Your task to perform on an android device: turn pop-ups on in chrome Image 0: 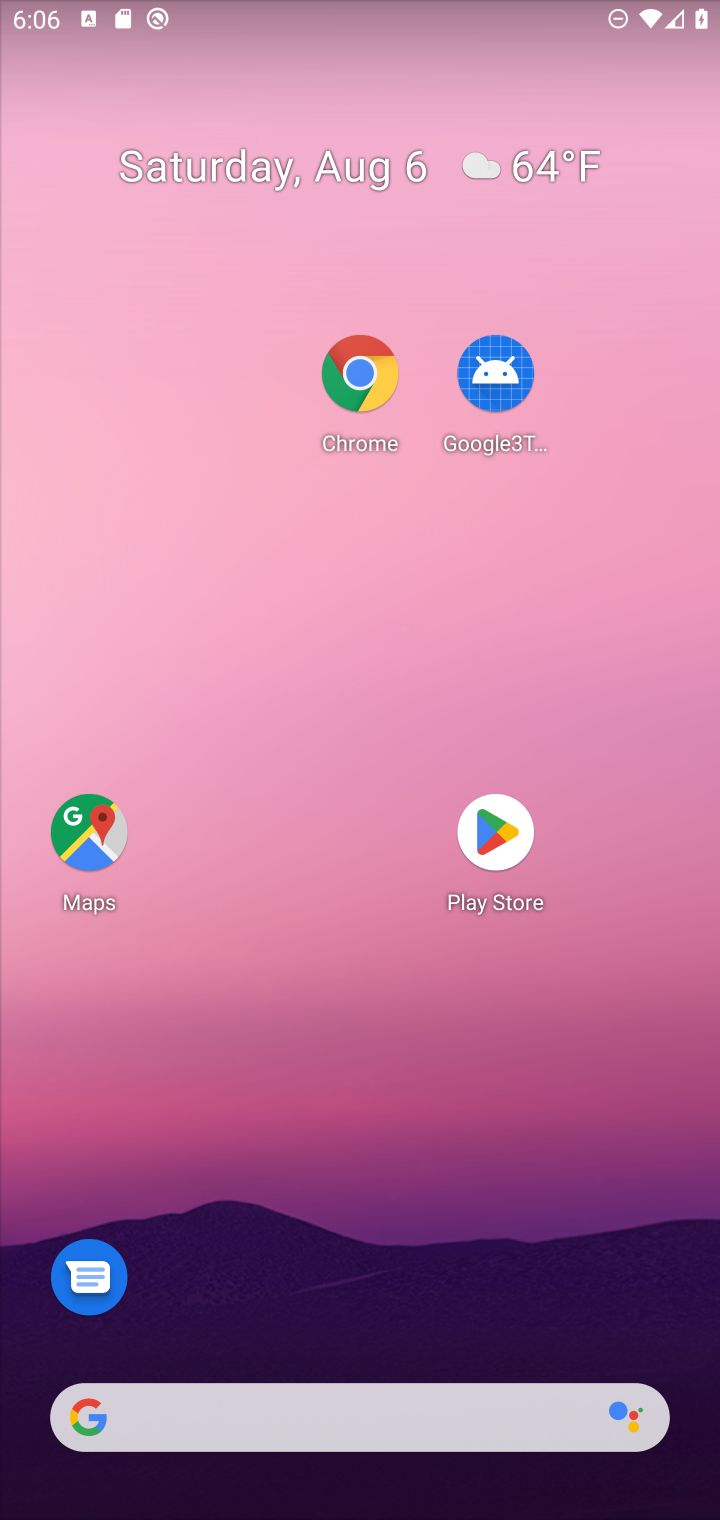
Step 0: drag from (505, 1409) to (322, 36)
Your task to perform on an android device: turn pop-ups on in chrome Image 1: 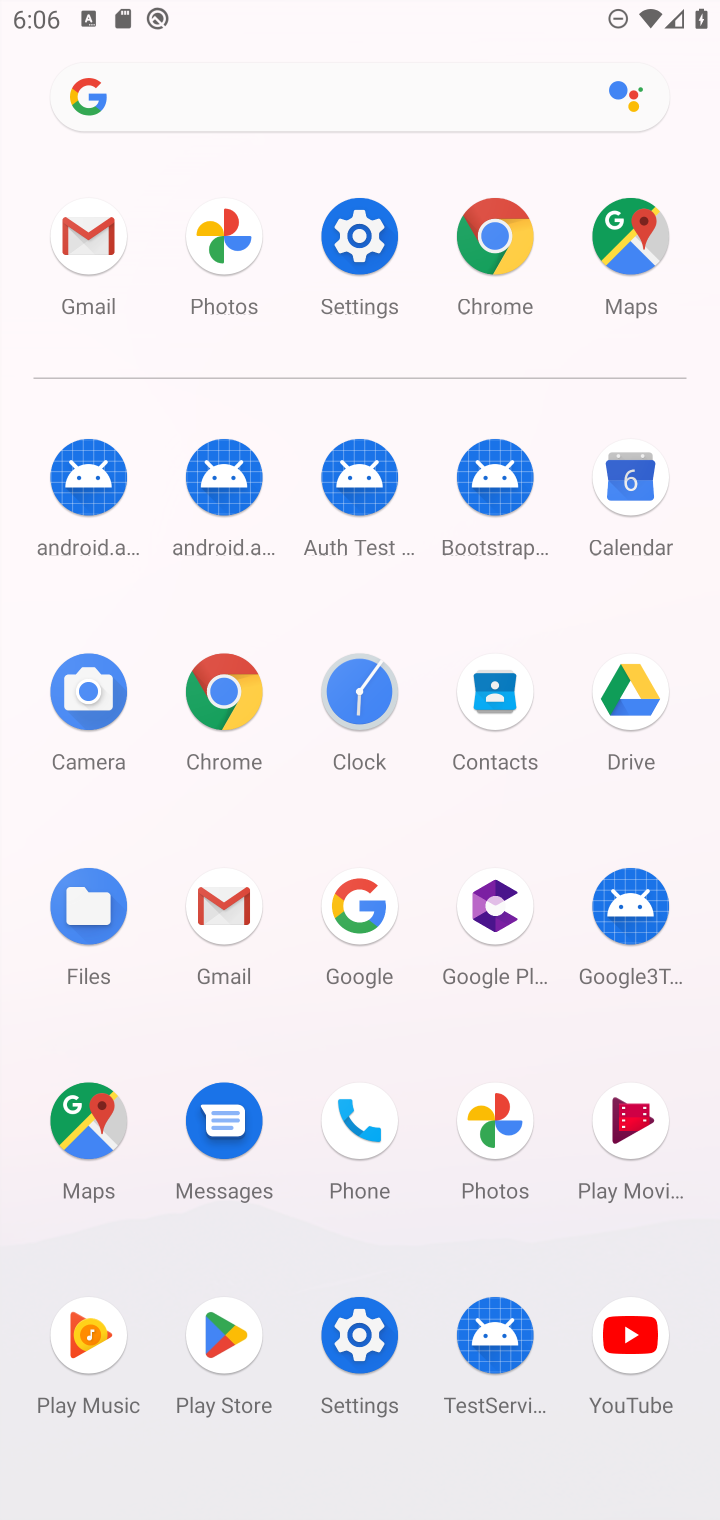
Step 1: click (221, 711)
Your task to perform on an android device: turn pop-ups on in chrome Image 2: 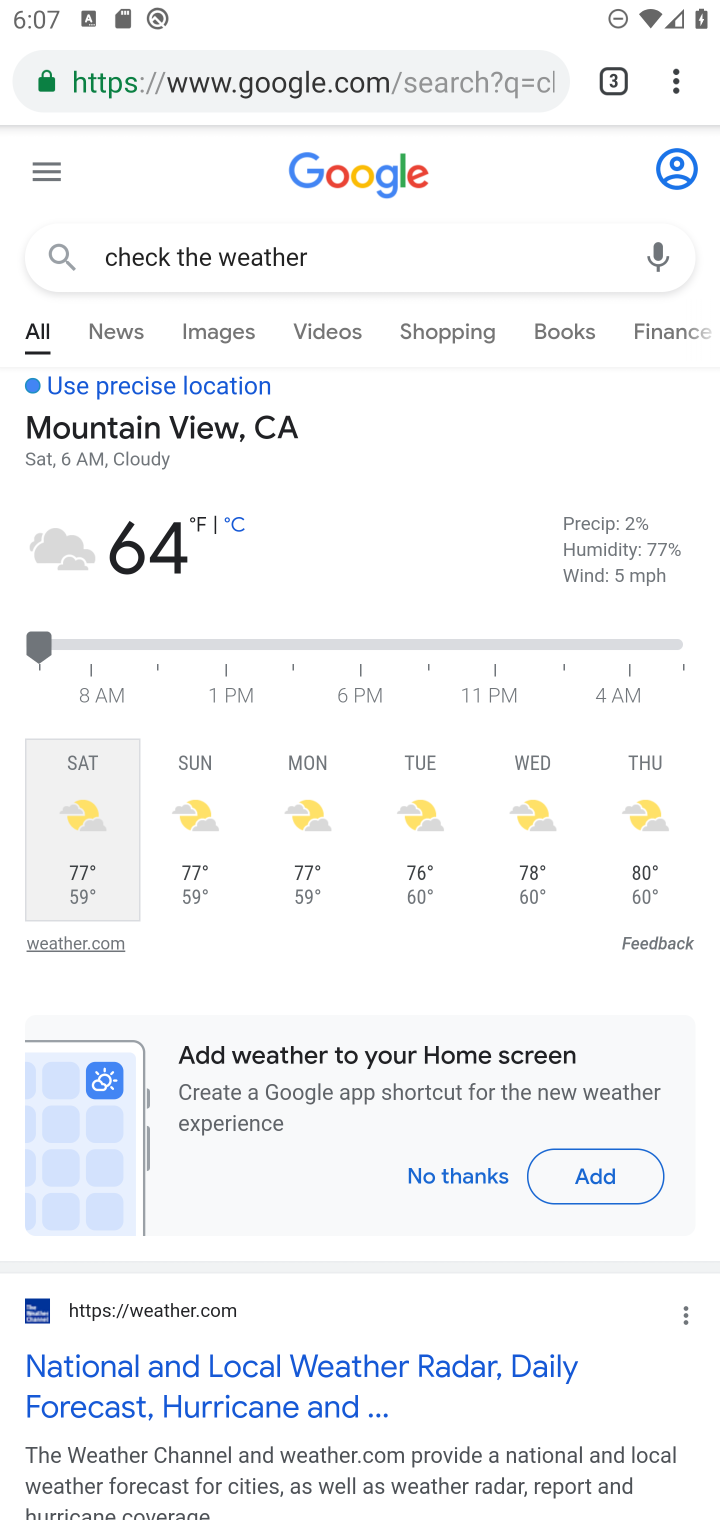
Step 2: click (676, 84)
Your task to perform on an android device: turn pop-ups on in chrome Image 3: 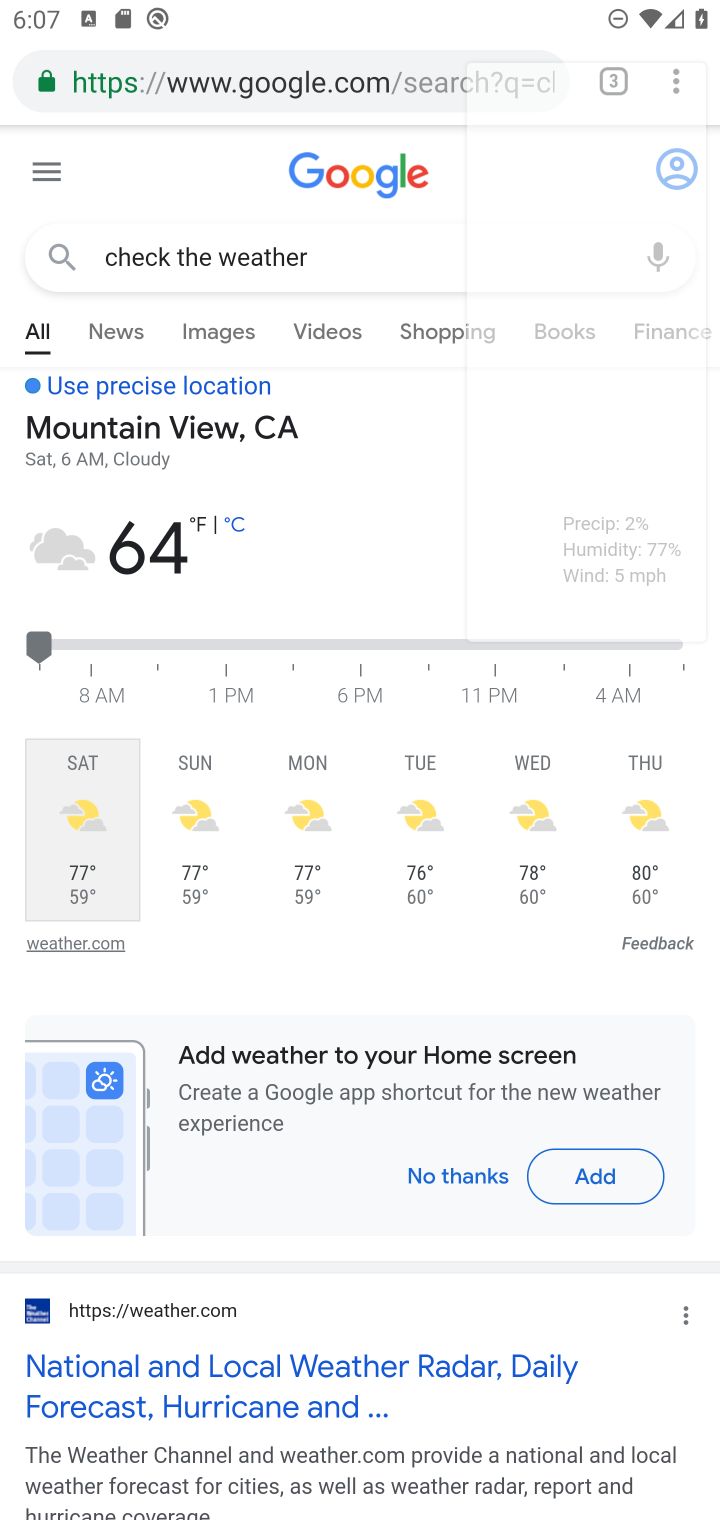
Step 3: click (676, 84)
Your task to perform on an android device: turn pop-ups on in chrome Image 4: 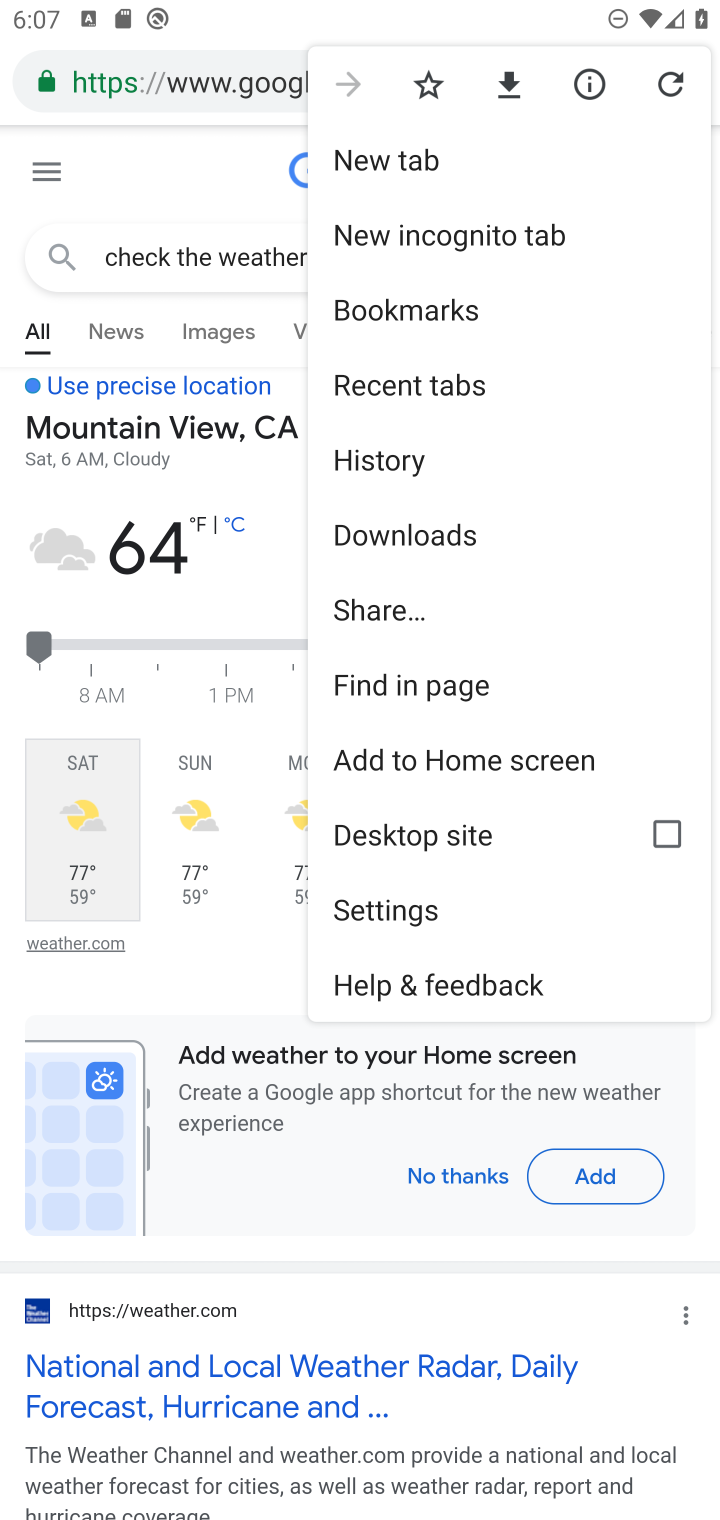
Step 4: click (457, 903)
Your task to perform on an android device: turn pop-ups on in chrome Image 5: 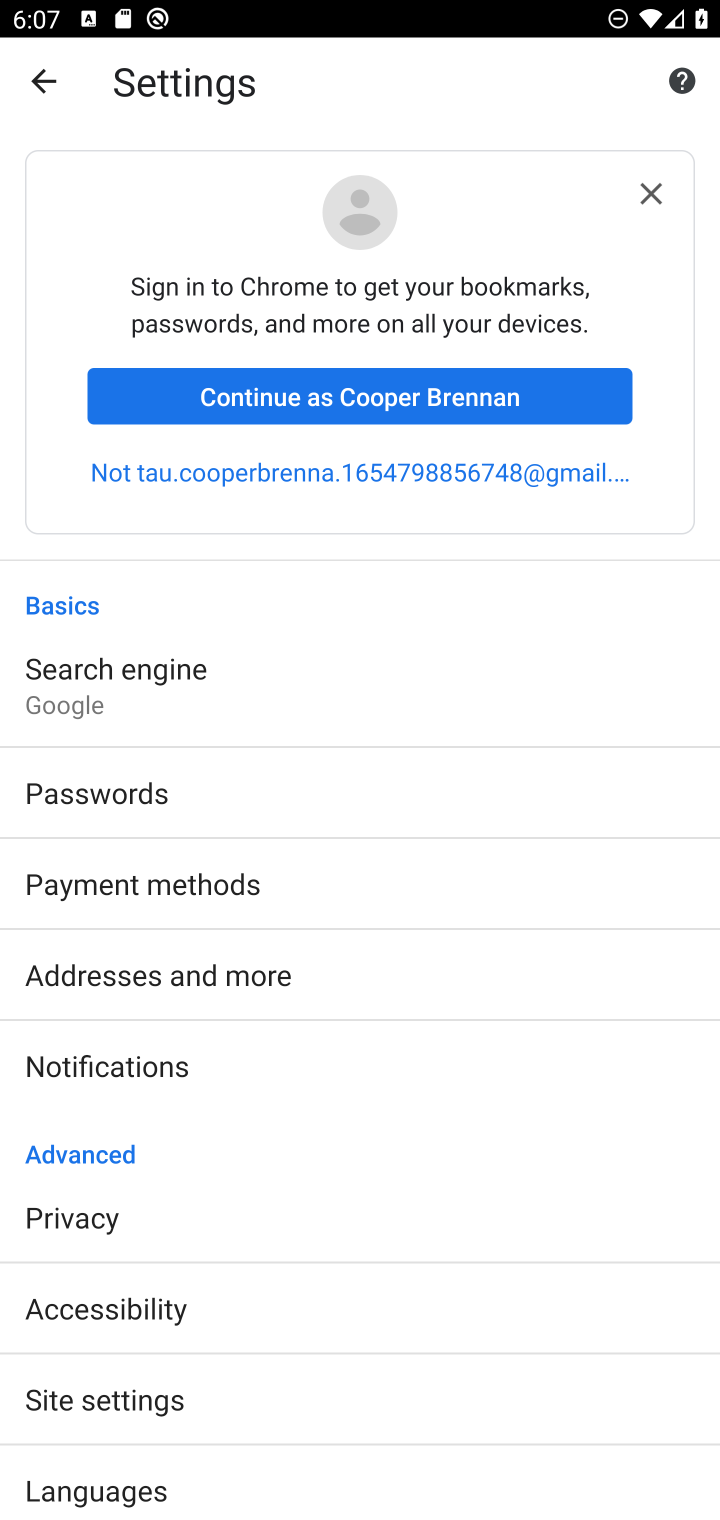
Step 5: click (128, 1409)
Your task to perform on an android device: turn pop-ups on in chrome Image 6: 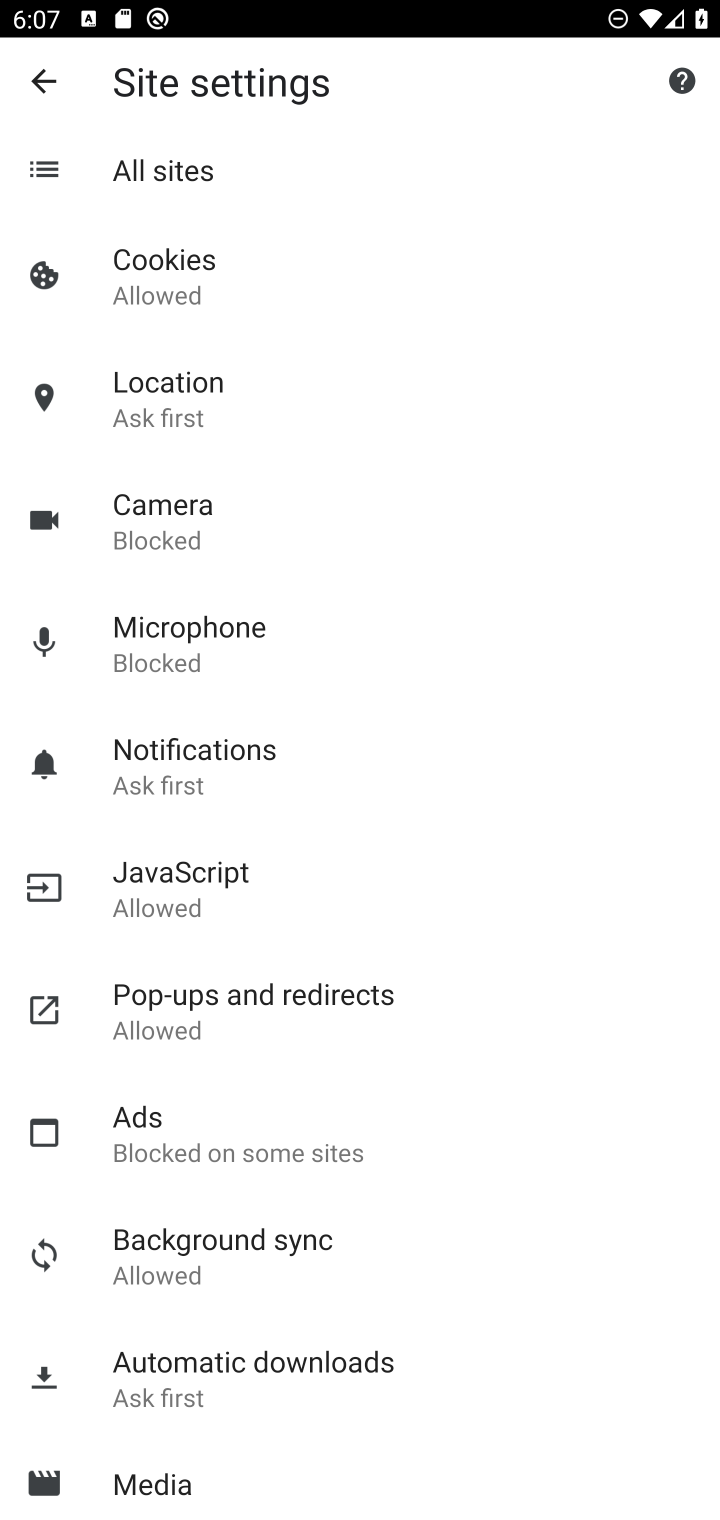
Step 6: click (232, 1006)
Your task to perform on an android device: turn pop-ups on in chrome Image 7: 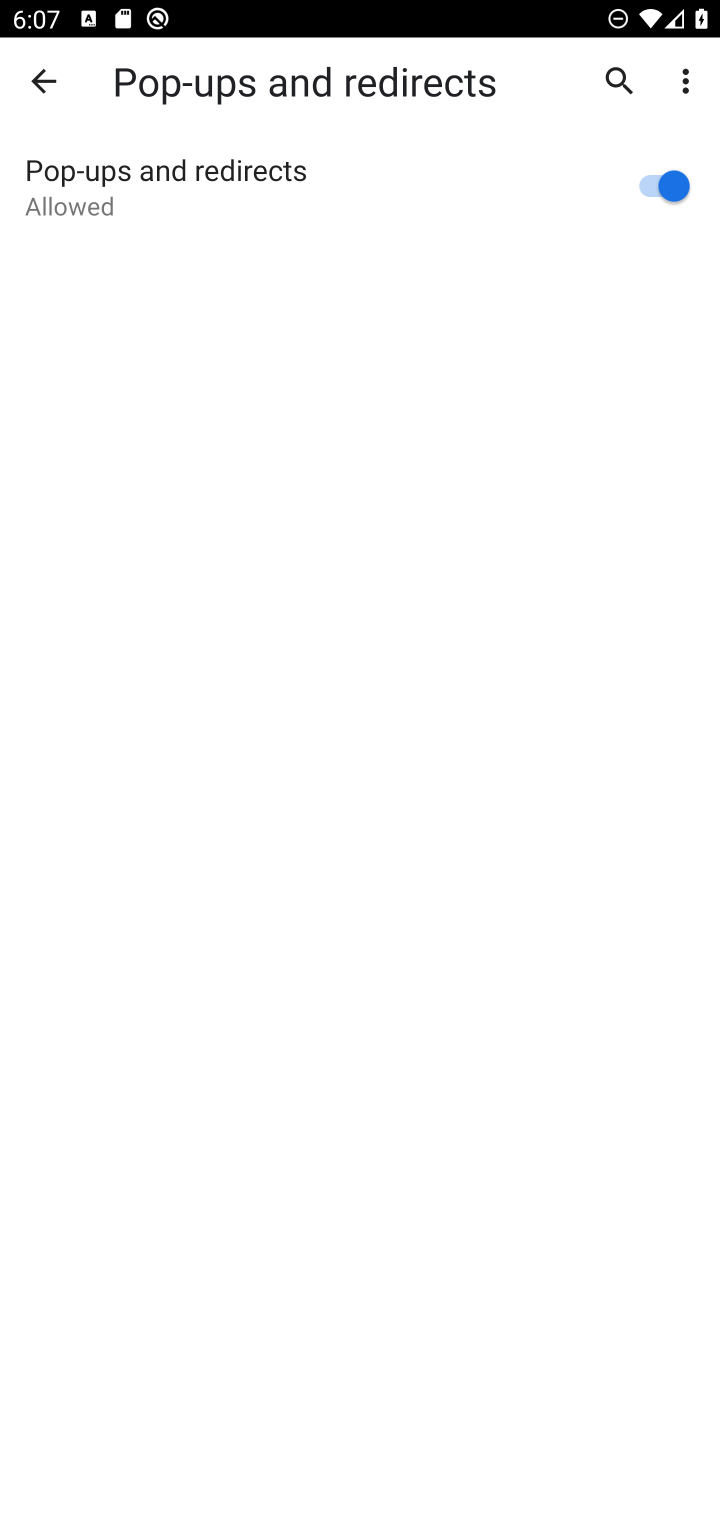
Step 7: task complete